Your task to perform on an android device: Go to display settings Image 0: 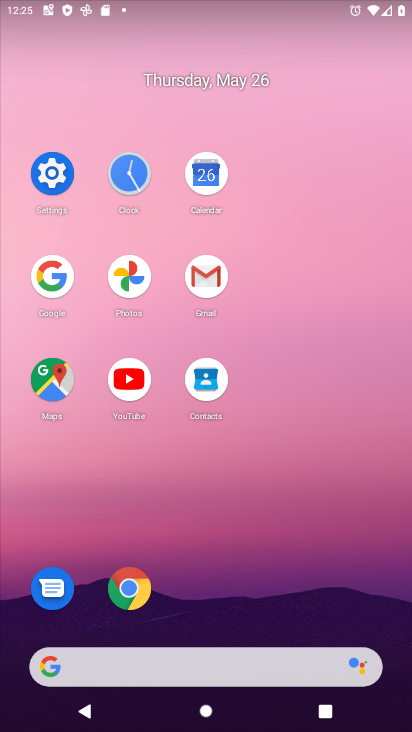
Step 0: click (55, 184)
Your task to perform on an android device: Go to display settings Image 1: 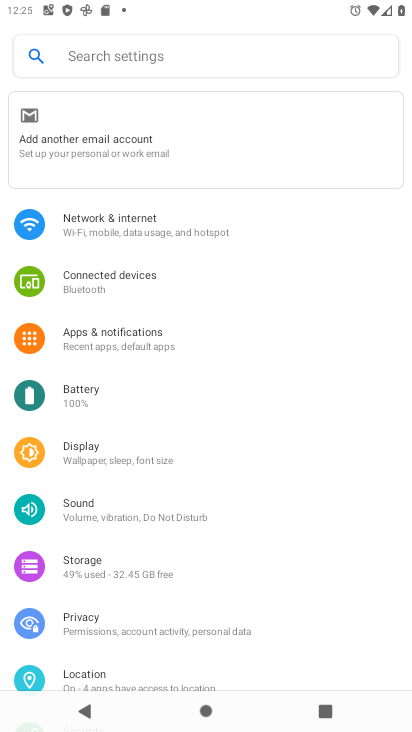
Step 1: drag from (207, 556) to (220, 281)
Your task to perform on an android device: Go to display settings Image 2: 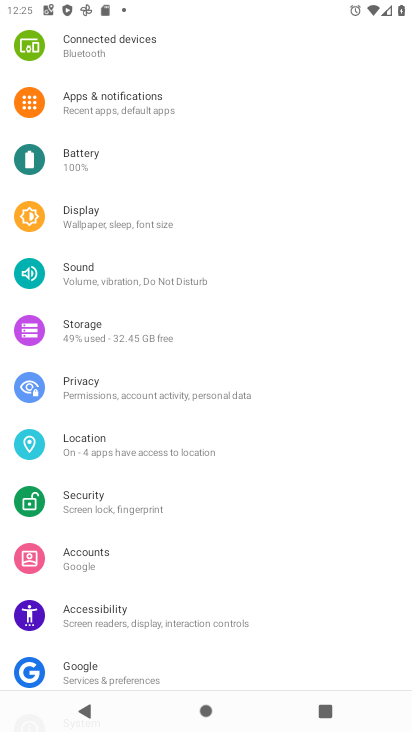
Step 2: click (185, 219)
Your task to perform on an android device: Go to display settings Image 3: 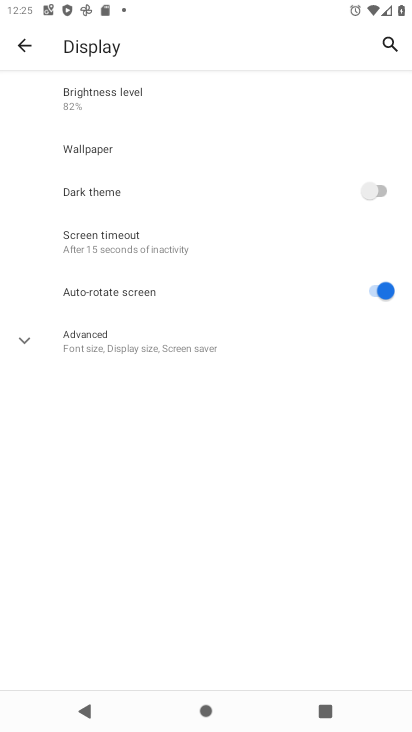
Step 3: task complete